Your task to perform on an android device: check google app version Image 0: 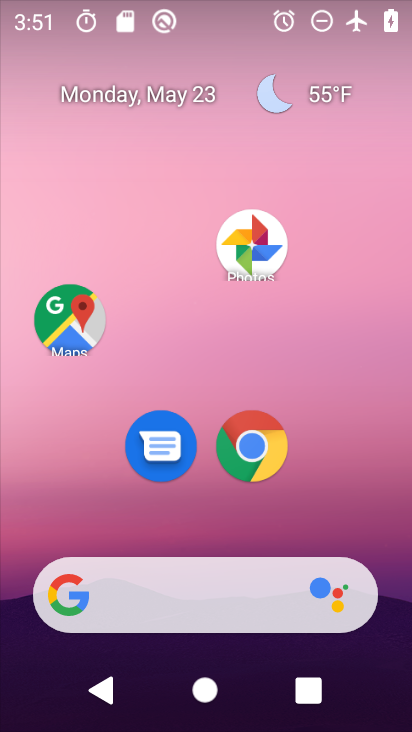
Step 0: drag from (190, 528) to (203, 154)
Your task to perform on an android device: check google app version Image 1: 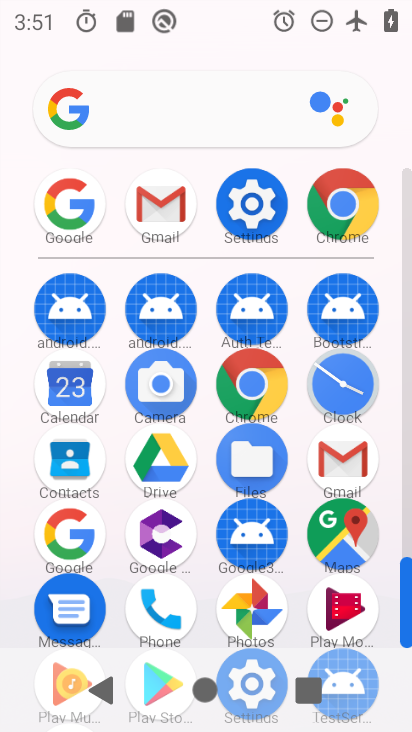
Step 1: click (77, 545)
Your task to perform on an android device: check google app version Image 2: 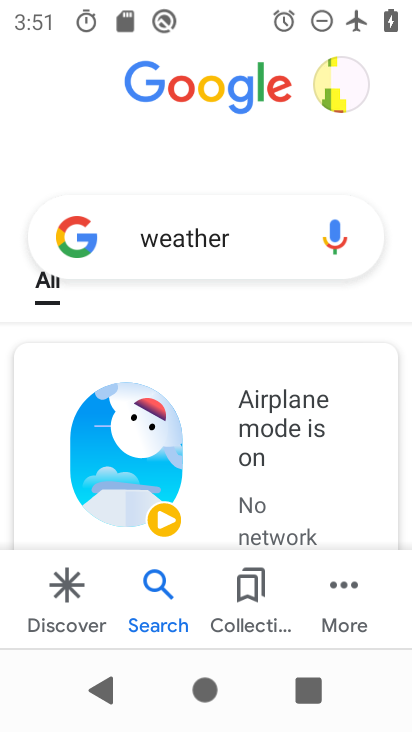
Step 2: click (333, 586)
Your task to perform on an android device: check google app version Image 3: 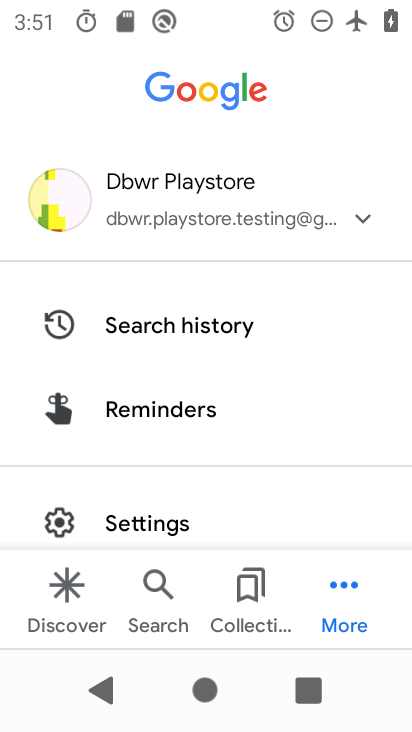
Step 3: drag from (219, 507) to (230, 180)
Your task to perform on an android device: check google app version Image 4: 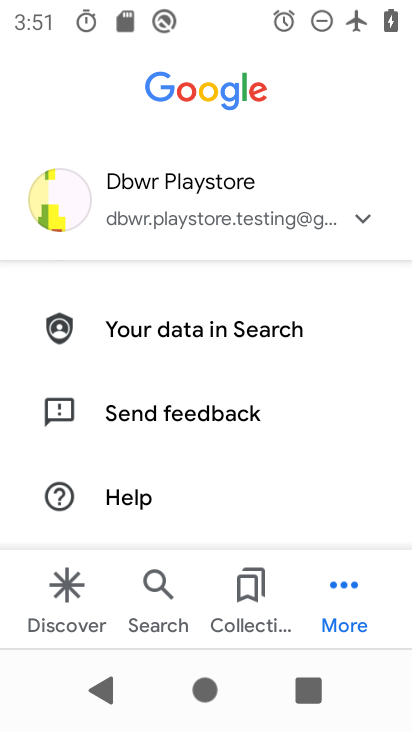
Step 4: click (175, 474)
Your task to perform on an android device: check google app version Image 5: 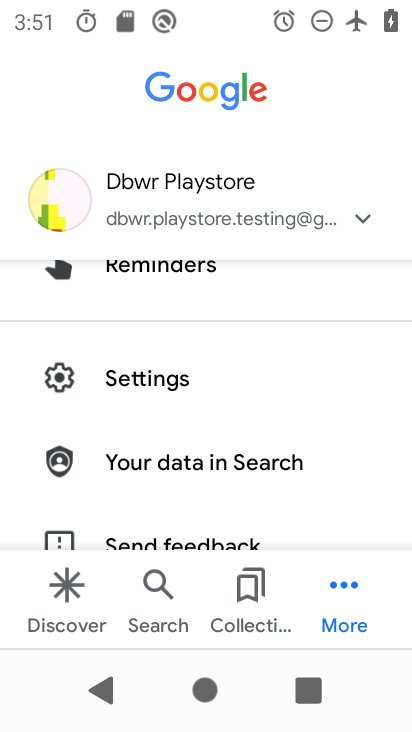
Step 5: click (170, 346)
Your task to perform on an android device: check google app version Image 6: 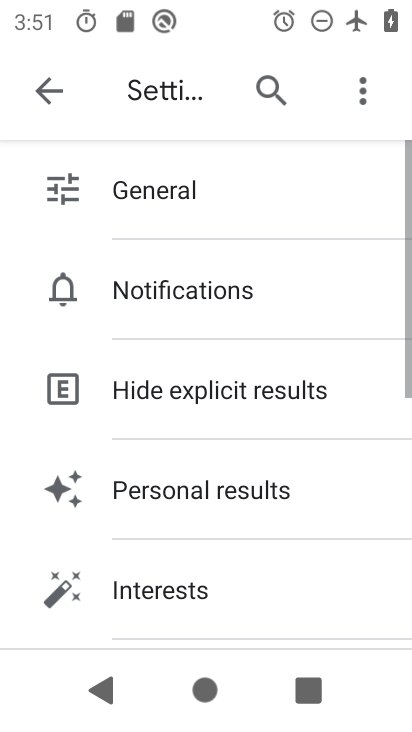
Step 6: drag from (200, 528) to (184, 248)
Your task to perform on an android device: check google app version Image 7: 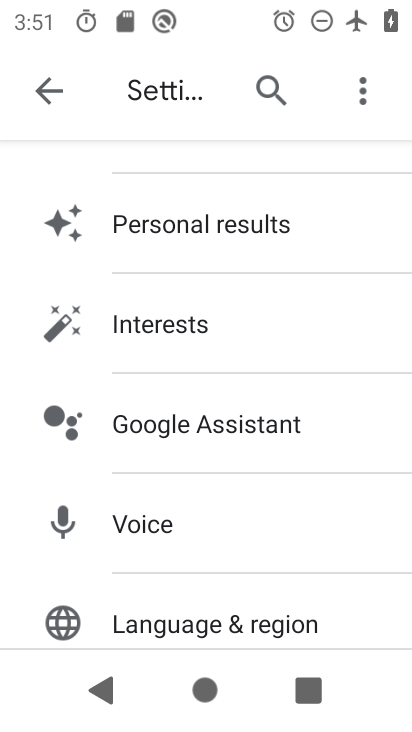
Step 7: drag from (179, 538) to (196, 326)
Your task to perform on an android device: check google app version Image 8: 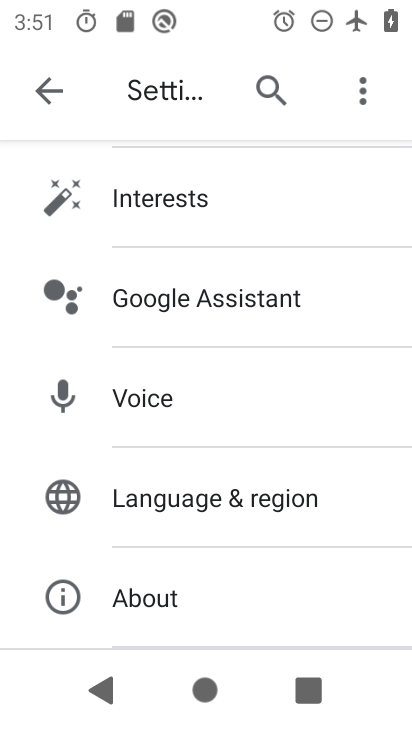
Step 8: click (169, 591)
Your task to perform on an android device: check google app version Image 9: 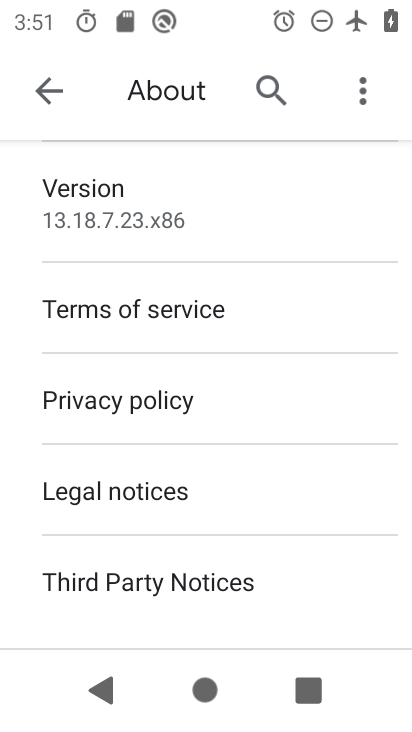
Step 9: click (167, 223)
Your task to perform on an android device: check google app version Image 10: 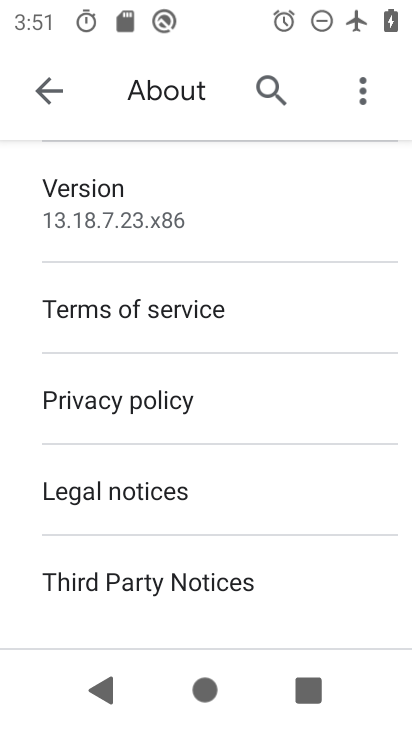
Step 10: task complete